Your task to perform on an android device: turn smart compose on in the gmail app Image 0: 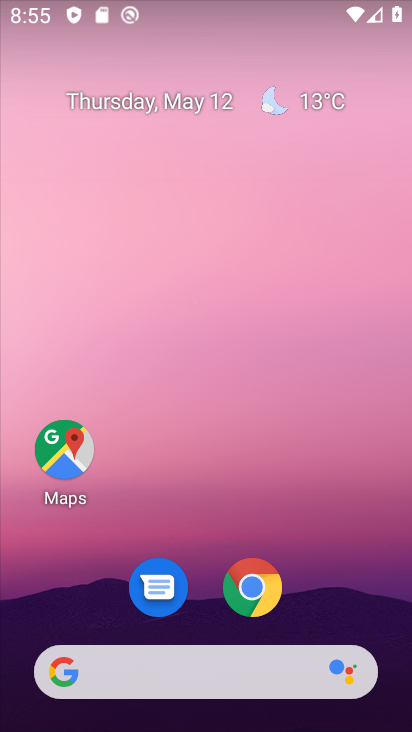
Step 0: drag from (371, 562) to (260, 6)
Your task to perform on an android device: turn smart compose on in the gmail app Image 1: 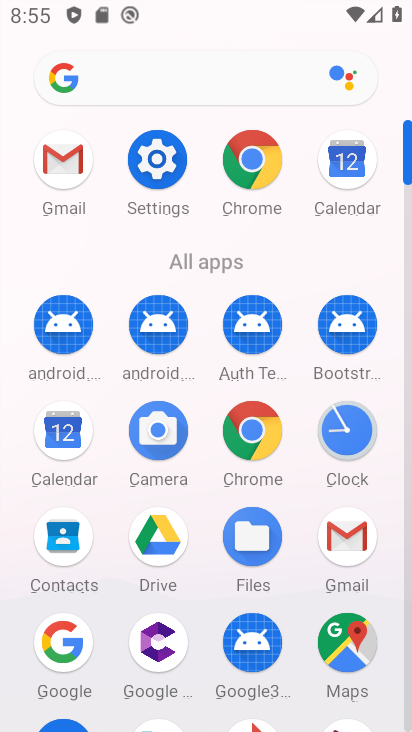
Step 1: click (367, 540)
Your task to perform on an android device: turn smart compose on in the gmail app Image 2: 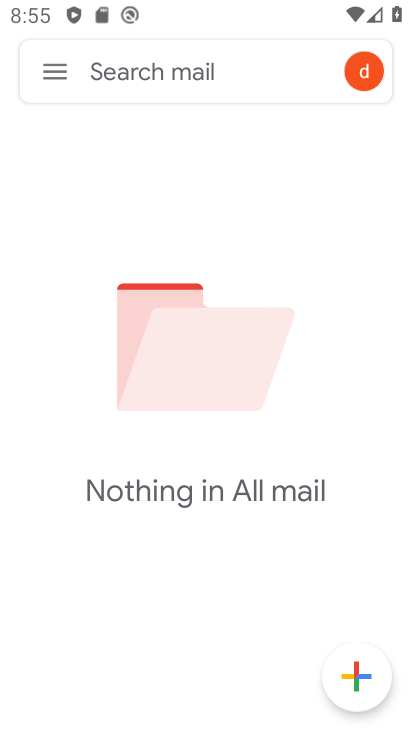
Step 2: click (60, 70)
Your task to perform on an android device: turn smart compose on in the gmail app Image 3: 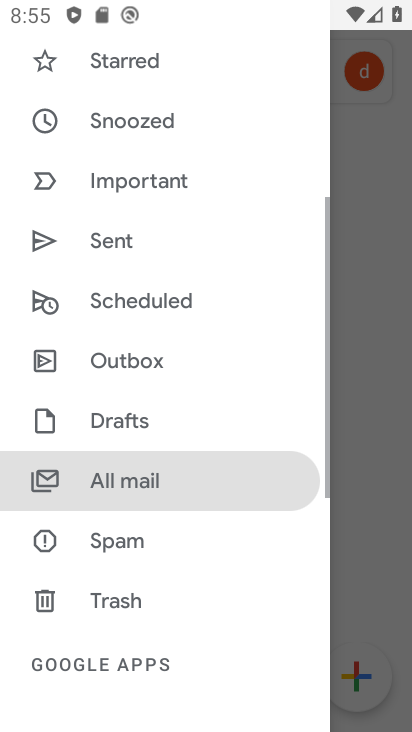
Step 3: drag from (151, 548) to (157, 147)
Your task to perform on an android device: turn smart compose on in the gmail app Image 4: 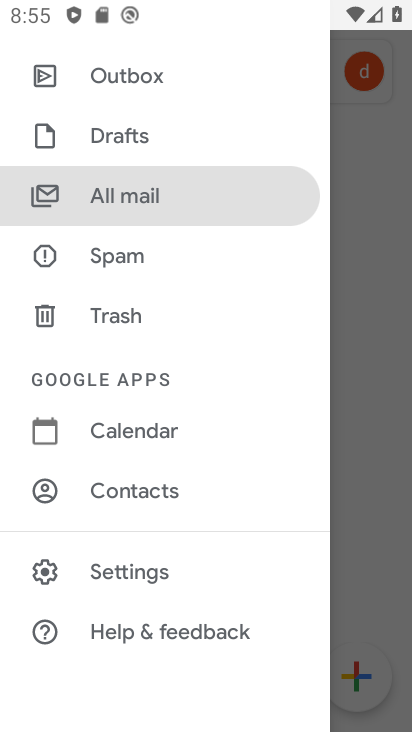
Step 4: click (167, 592)
Your task to perform on an android device: turn smart compose on in the gmail app Image 5: 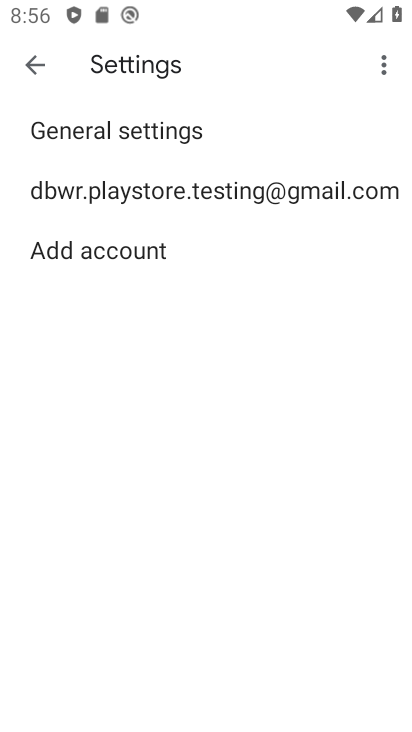
Step 5: click (125, 186)
Your task to perform on an android device: turn smart compose on in the gmail app Image 6: 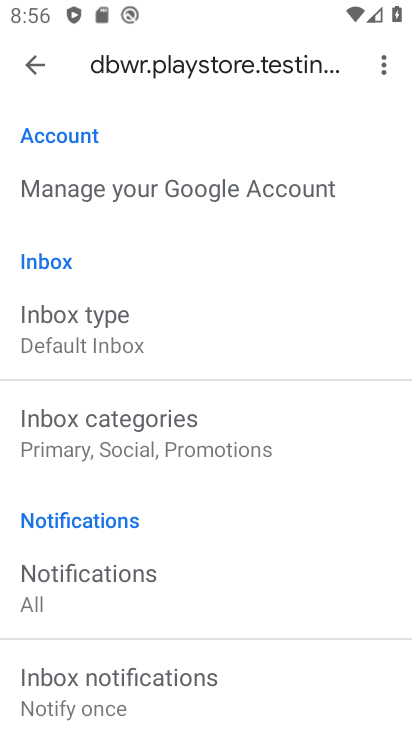
Step 6: task complete